Your task to perform on an android device: Search for flights from NYC to Mexico city Image 0: 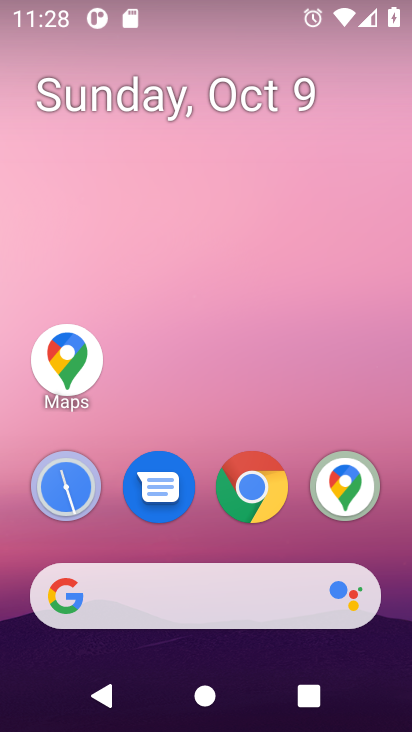
Step 0: drag from (202, 558) to (196, 20)
Your task to perform on an android device: Search for flights from NYC to Mexico city Image 1: 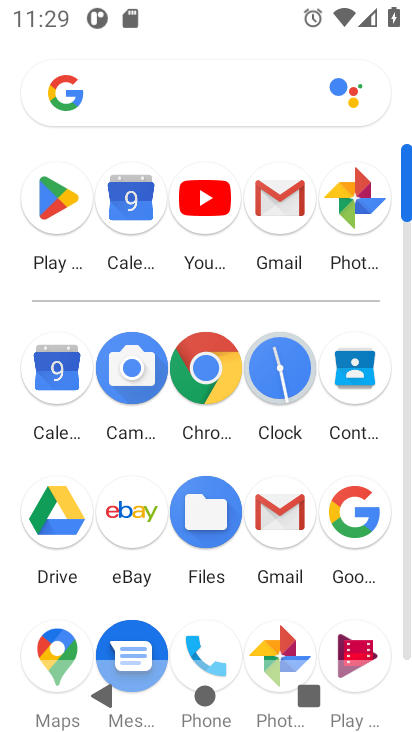
Step 1: click (201, 375)
Your task to perform on an android device: Search for flights from NYC to Mexico city Image 2: 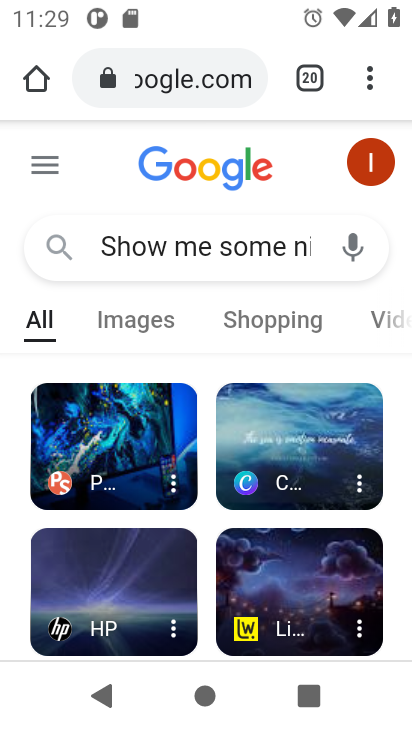
Step 2: click (204, 259)
Your task to perform on an android device: Search for flights from NYC to Mexico city Image 3: 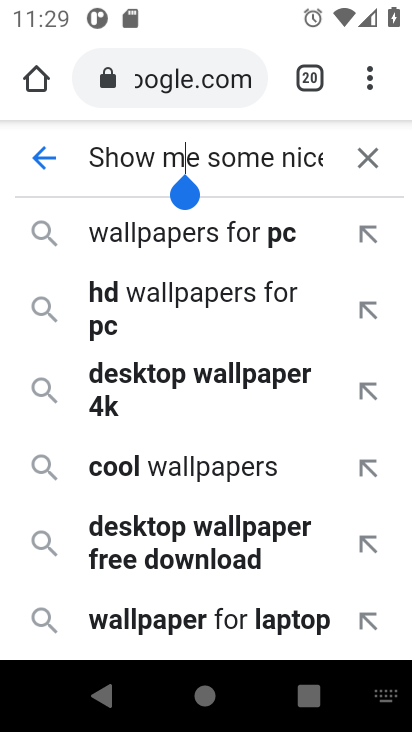
Step 3: click (365, 153)
Your task to perform on an android device: Search for flights from NYC to Mexico city Image 4: 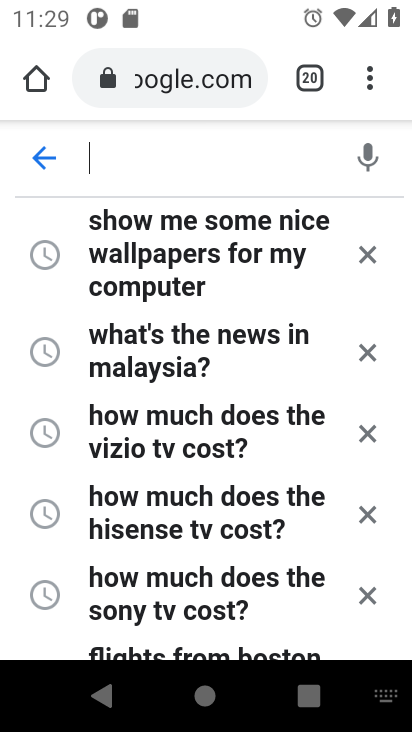
Step 4: type "flights from NYC to Mexico city"
Your task to perform on an android device: Search for flights from NYC to Mexico city Image 5: 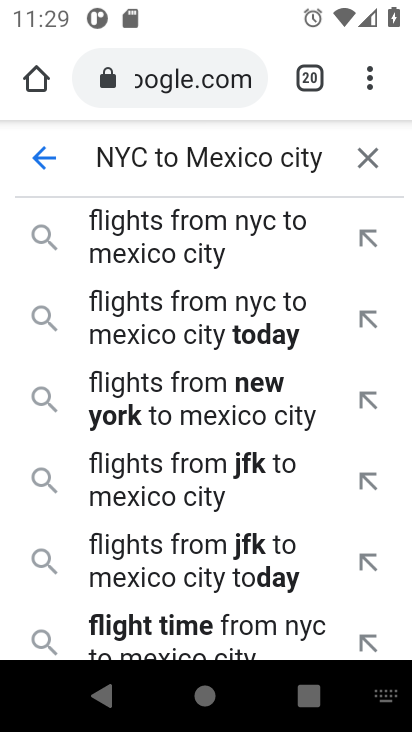
Step 5: click (209, 228)
Your task to perform on an android device: Search for flights from NYC to Mexico city Image 6: 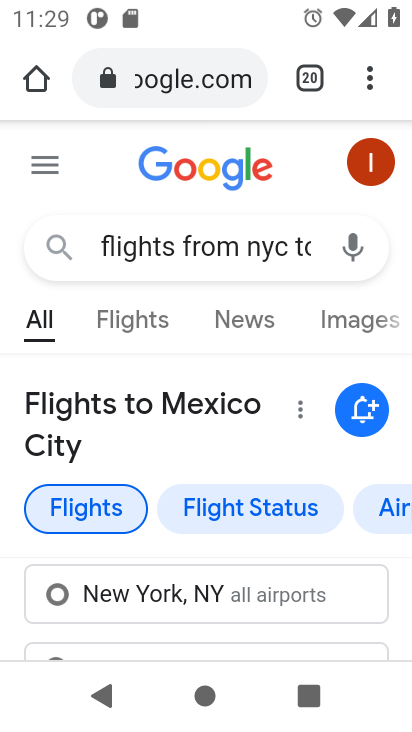
Step 6: task complete